Your task to perform on an android device: open app "Grab" (install if not already installed) and enter user name: "interspersion@gmail.com" and password: "aristocrats" Image 0: 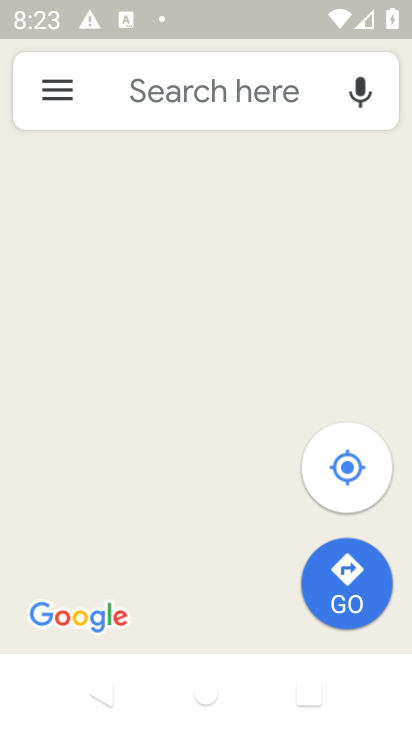
Step 0: press home button
Your task to perform on an android device: open app "Grab" (install if not already installed) and enter user name: "interspersion@gmail.com" and password: "aristocrats" Image 1: 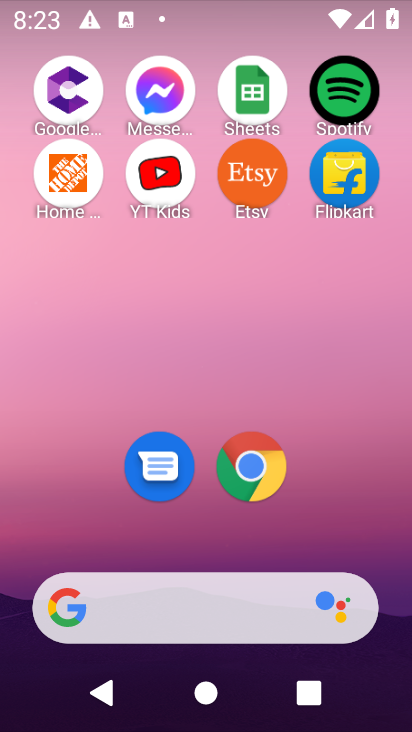
Step 1: drag from (174, 552) to (222, 73)
Your task to perform on an android device: open app "Grab" (install if not already installed) and enter user name: "interspersion@gmail.com" and password: "aristocrats" Image 2: 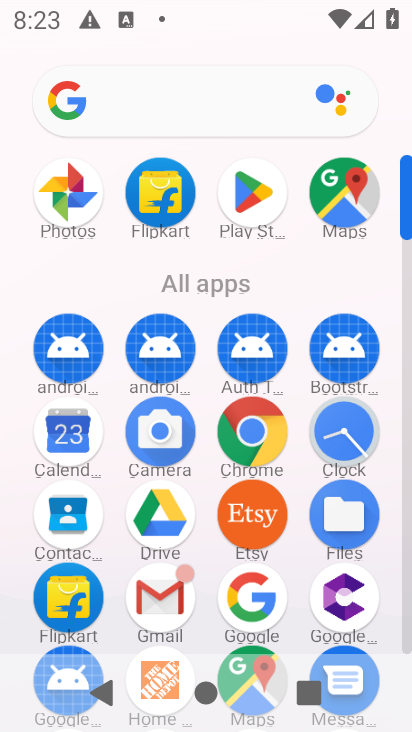
Step 2: click (249, 192)
Your task to perform on an android device: open app "Grab" (install if not already installed) and enter user name: "interspersion@gmail.com" and password: "aristocrats" Image 3: 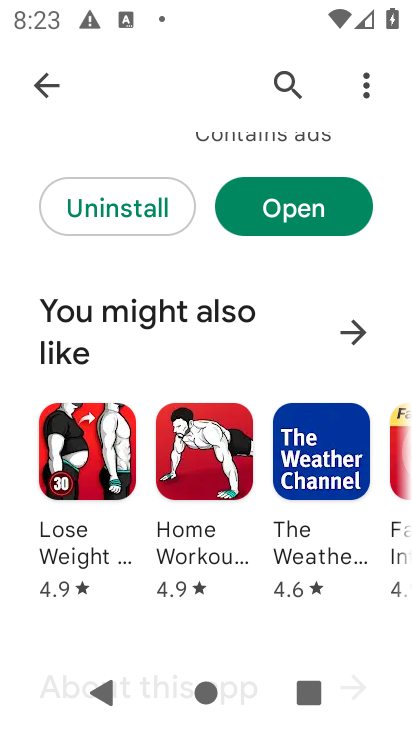
Step 3: click (296, 71)
Your task to perform on an android device: open app "Grab" (install if not already installed) and enter user name: "interspersion@gmail.com" and password: "aristocrats" Image 4: 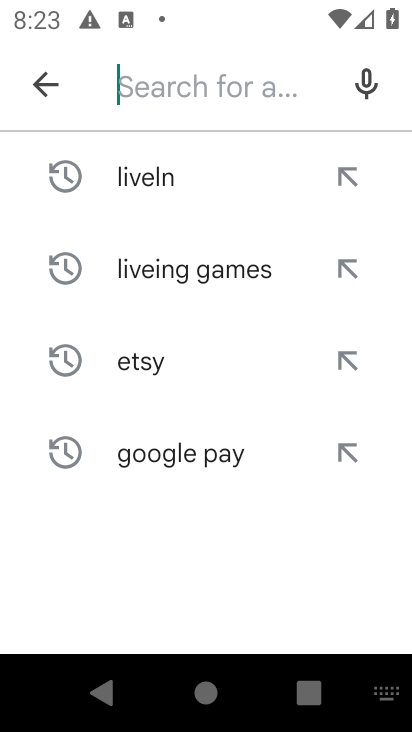
Step 4: type "grab"
Your task to perform on an android device: open app "Grab" (install if not already installed) and enter user name: "interspersion@gmail.com" and password: "aristocrats" Image 5: 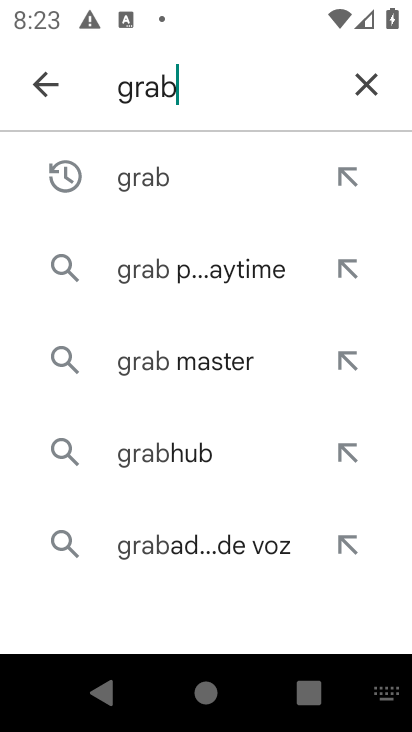
Step 5: click (174, 176)
Your task to perform on an android device: open app "Grab" (install if not already installed) and enter user name: "interspersion@gmail.com" and password: "aristocrats" Image 6: 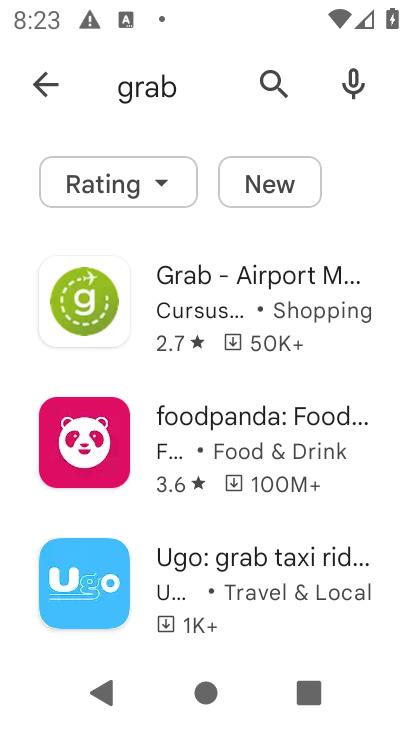
Step 6: click (221, 331)
Your task to perform on an android device: open app "Grab" (install if not already installed) and enter user name: "interspersion@gmail.com" and password: "aristocrats" Image 7: 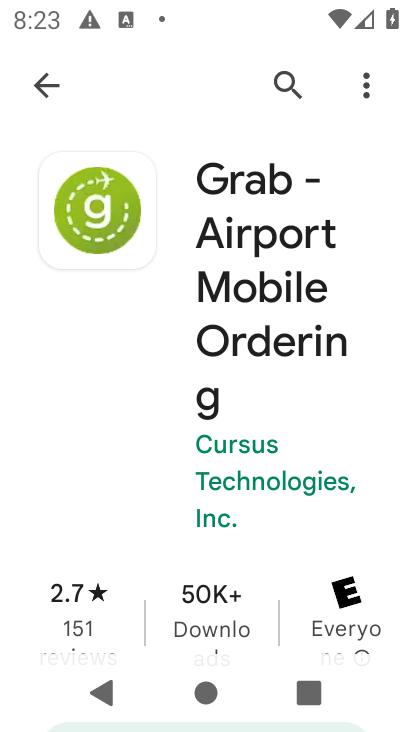
Step 7: drag from (294, 556) to (370, 66)
Your task to perform on an android device: open app "Grab" (install if not already installed) and enter user name: "interspersion@gmail.com" and password: "aristocrats" Image 8: 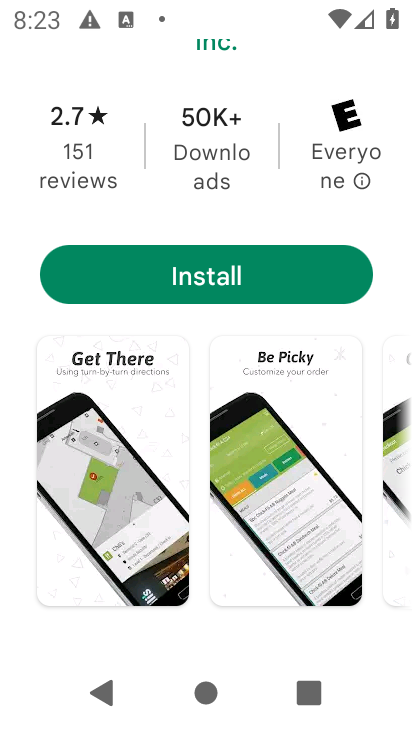
Step 8: click (206, 268)
Your task to perform on an android device: open app "Grab" (install if not already installed) and enter user name: "interspersion@gmail.com" and password: "aristocrats" Image 9: 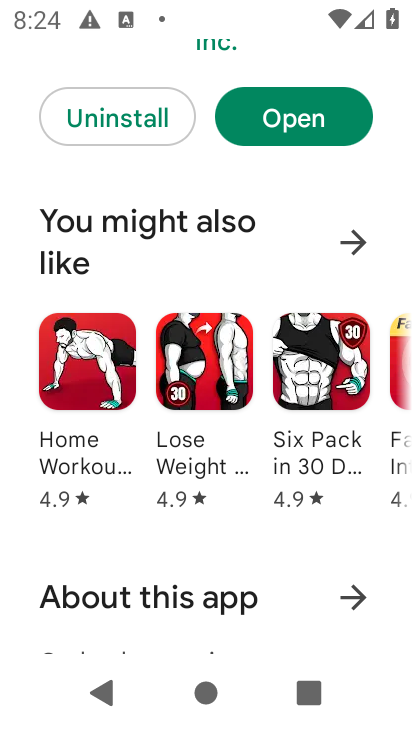
Step 9: drag from (276, 240) to (158, 650)
Your task to perform on an android device: open app "Grab" (install if not already installed) and enter user name: "interspersion@gmail.com" and password: "aristocrats" Image 10: 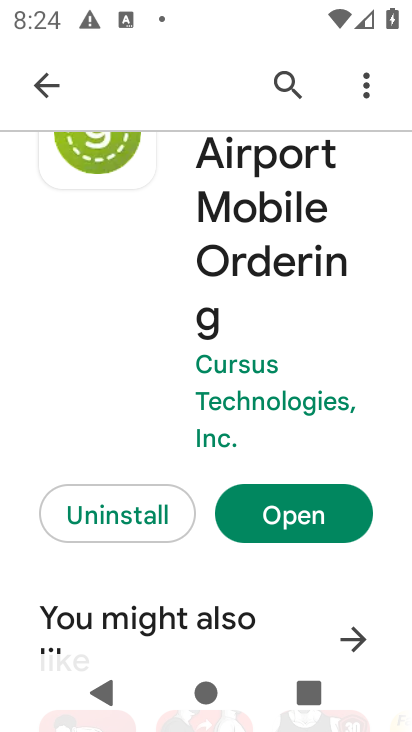
Step 10: click (276, 508)
Your task to perform on an android device: open app "Grab" (install if not already installed) and enter user name: "interspersion@gmail.com" and password: "aristocrats" Image 11: 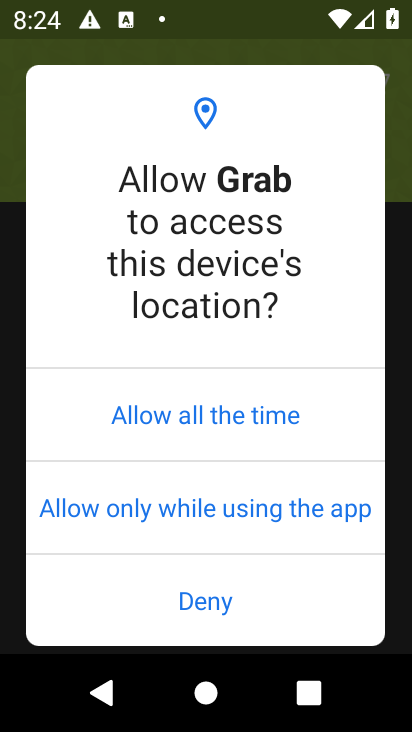
Step 11: click (222, 405)
Your task to perform on an android device: open app "Grab" (install if not already installed) and enter user name: "interspersion@gmail.com" and password: "aristocrats" Image 12: 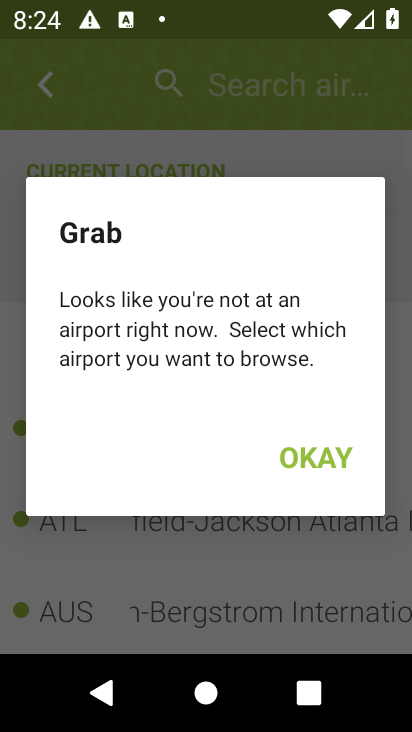
Step 12: click (331, 449)
Your task to perform on an android device: open app "Grab" (install if not already installed) and enter user name: "interspersion@gmail.com" and password: "aristocrats" Image 13: 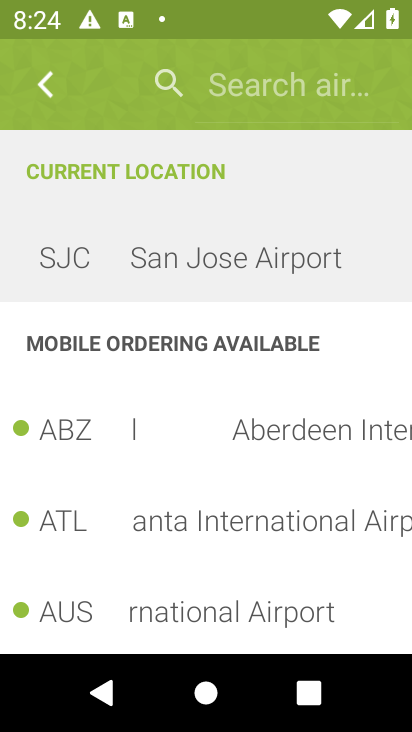
Step 13: click (51, 74)
Your task to perform on an android device: open app "Grab" (install if not already installed) and enter user name: "interspersion@gmail.com" and password: "aristocrats" Image 14: 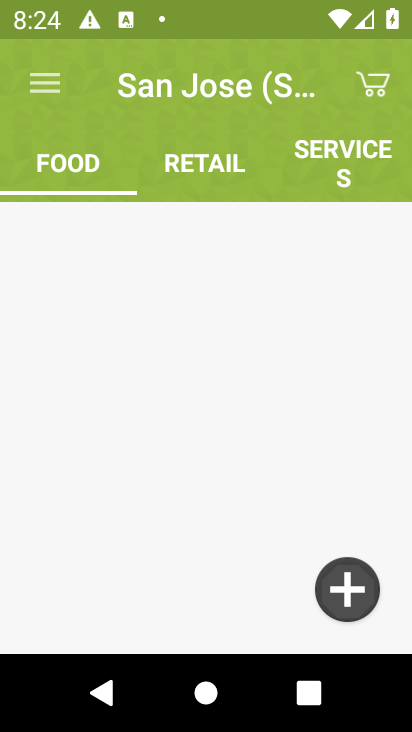
Step 14: click (49, 75)
Your task to perform on an android device: open app "Grab" (install if not already installed) and enter user name: "interspersion@gmail.com" and password: "aristocrats" Image 15: 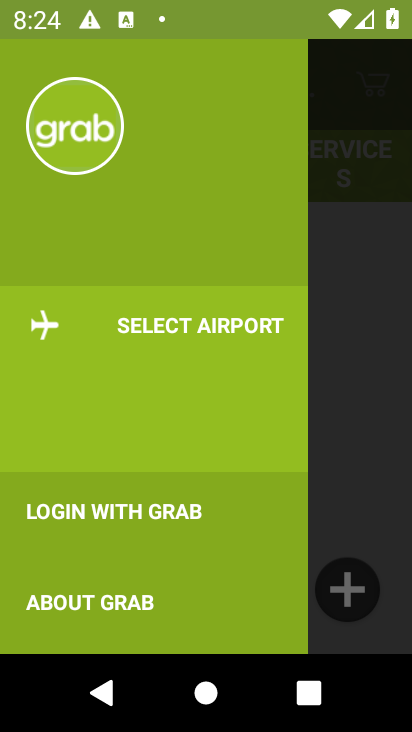
Step 15: click (101, 492)
Your task to perform on an android device: open app "Grab" (install if not already installed) and enter user name: "interspersion@gmail.com" and password: "aristocrats" Image 16: 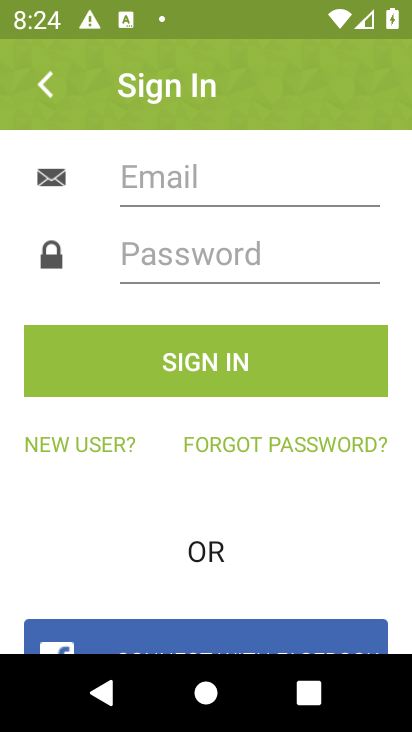
Step 16: click (158, 183)
Your task to perform on an android device: open app "Grab" (install if not already installed) and enter user name: "interspersion@gmail.com" and password: "aristocrats" Image 17: 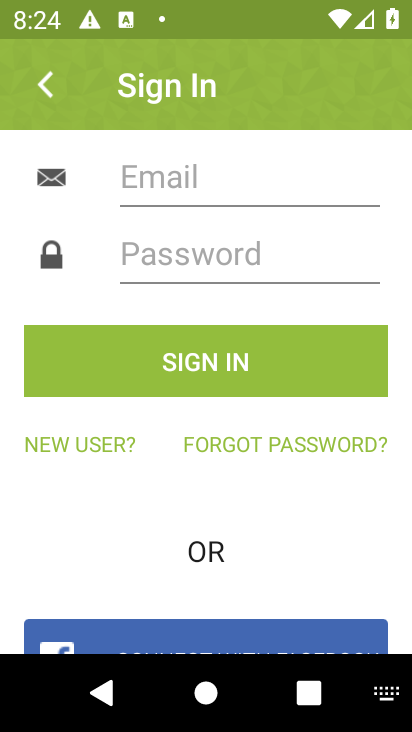
Step 17: type "interspersion@gmail.com"
Your task to perform on an android device: open app "Grab" (install if not already installed) and enter user name: "interspersion@gmail.com" and password: "aristocrats" Image 18: 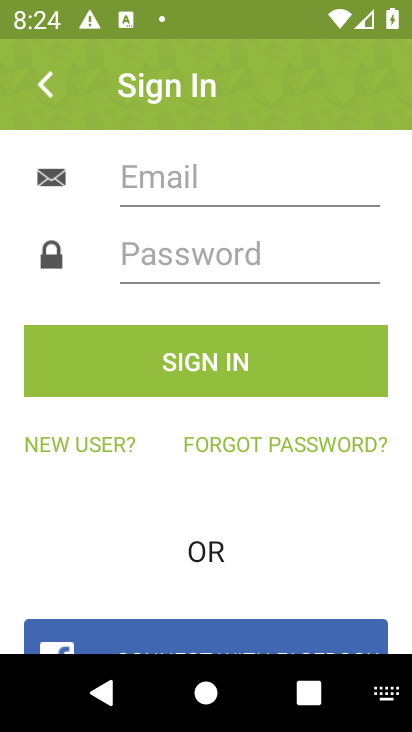
Step 18: click (200, 264)
Your task to perform on an android device: open app "Grab" (install if not already installed) and enter user name: "interspersion@gmail.com" and password: "aristocrats" Image 19: 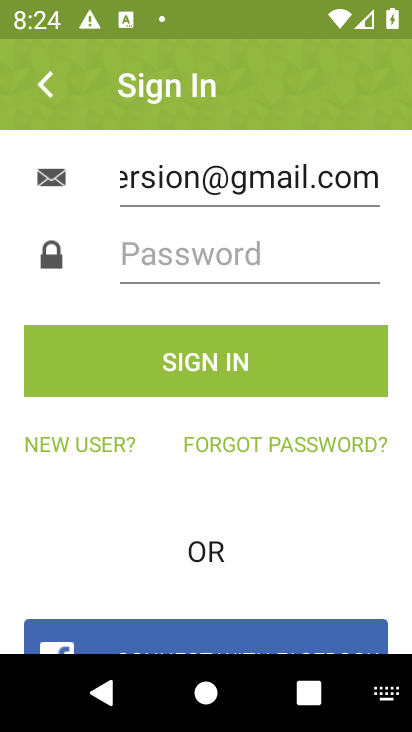
Step 19: click (214, 252)
Your task to perform on an android device: open app "Grab" (install if not already installed) and enter user name: "interspersion@gmail.com" and password: "aristocrats" Image 20: 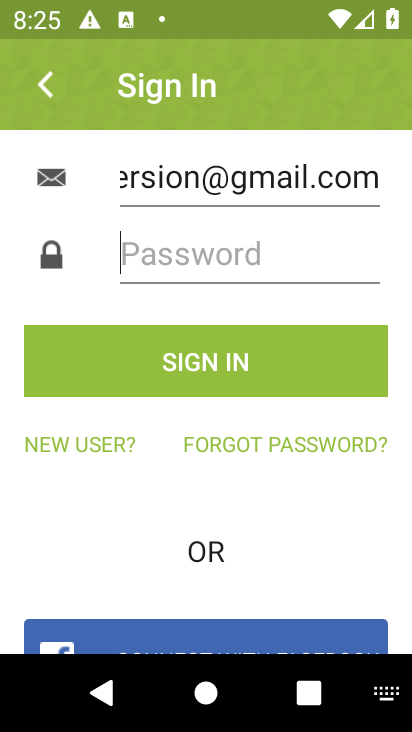
Step 20: type "aristocrats"
Your task to perform on an android device: open app "Grab" (install if not already installed) and enter user name: "interspersion@gmail.com" and password: "aristocrats" Image 21: 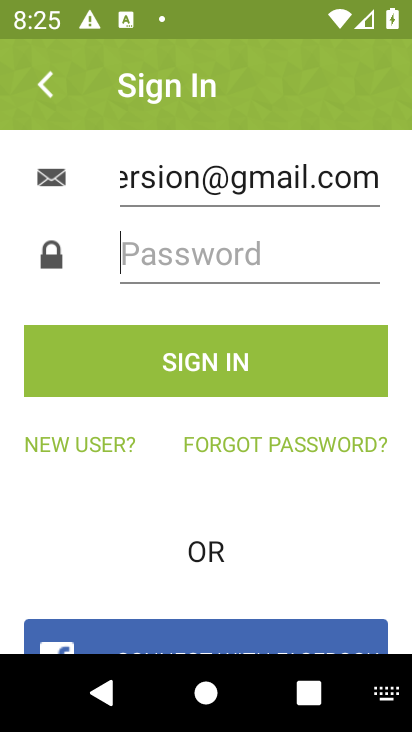
Step 21: click (70, 495)
Your task to perform on an android device: open app "Grab" (install if not already installed) and enter user name: "interspersion@gmail.com" and password: "aristocrats" Image 22: 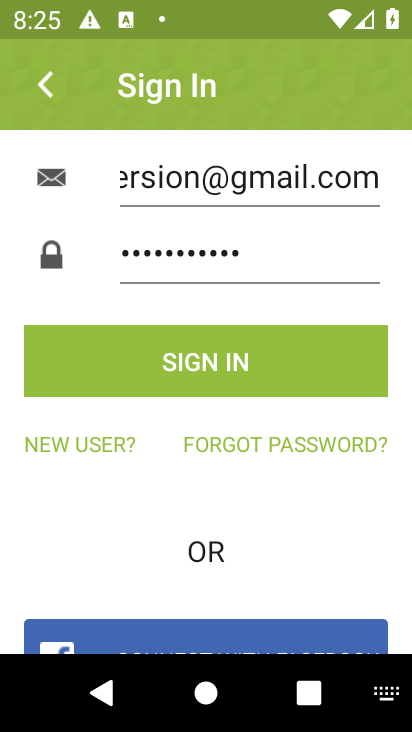
Step 22: task complete